Your task to perform on an android device: Search for pizza restaurants on Maps Image 0: 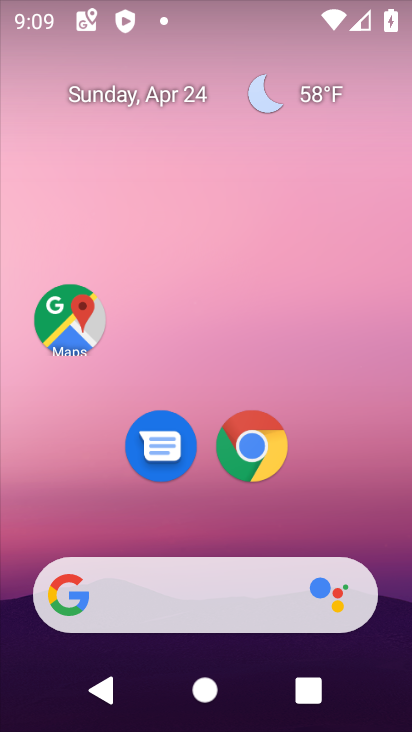
Step 0: drag from (238, 543) to (370, 138)
Your task to perform on an android device: Search for pizza restaurants on Maps Image 1: 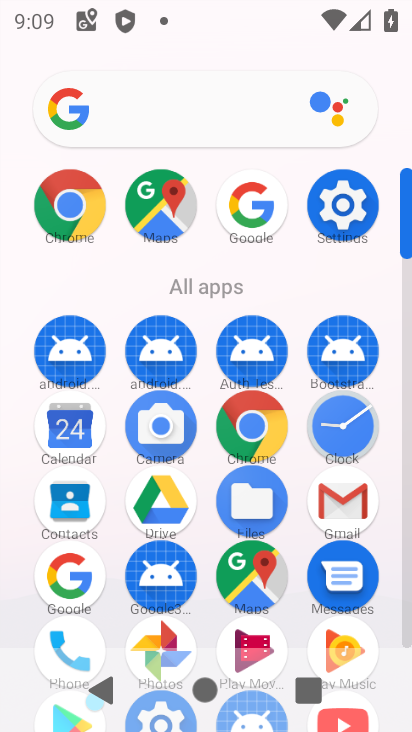
Step 1: click (166, 226)
Your task to perform on an android device: Search for pizza restaurants on Maps Image 2: 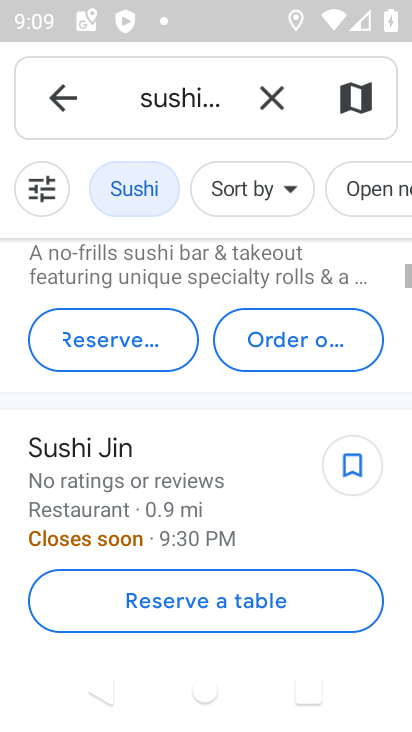
Step 2: click (271, 95)
Your task to perform on an android device: Search for pizza restaurants on Maps Image 3: 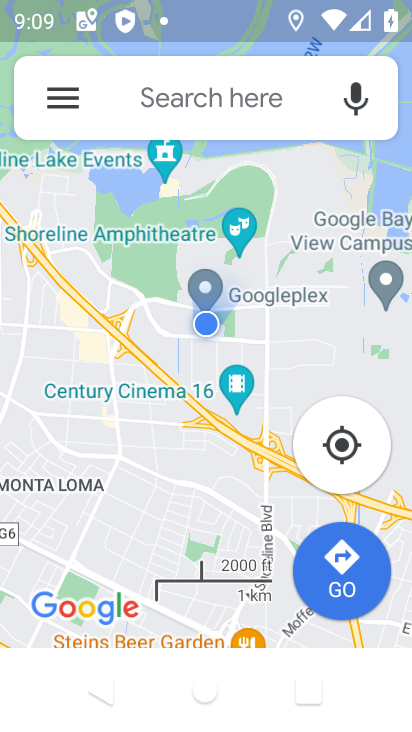
Step 3: click (193, 109)
Your task to perform on an android device: Search for pizza restaurants on Maps Image 4: 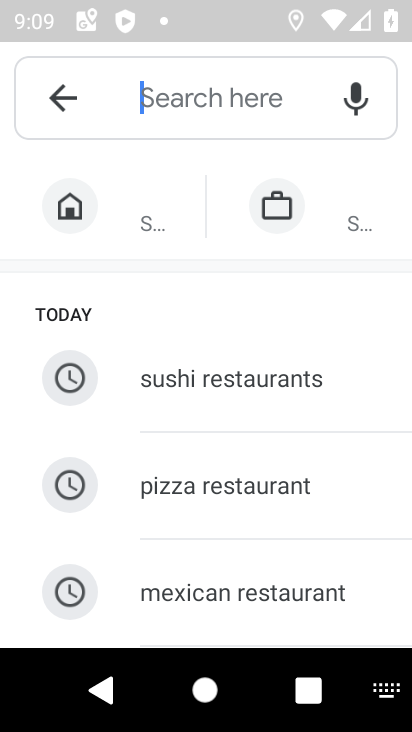
Step 4: click (184, 484)
Your task to perform on an android device: Search for pizza restaurants on Maps Image 5: 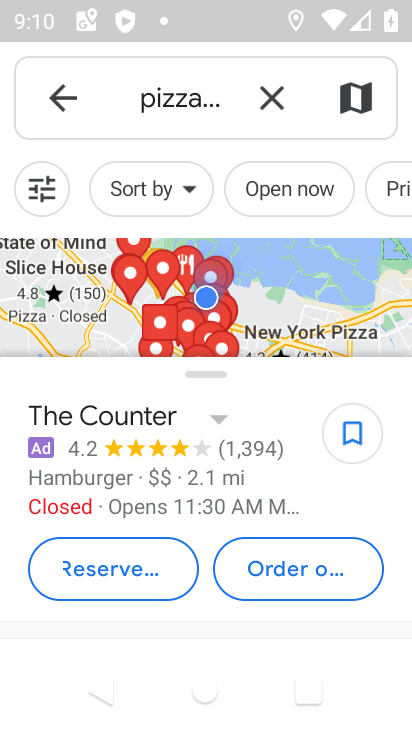
Step 5: task complete